Your task to perform on an android device: Go to Maps Image 0: 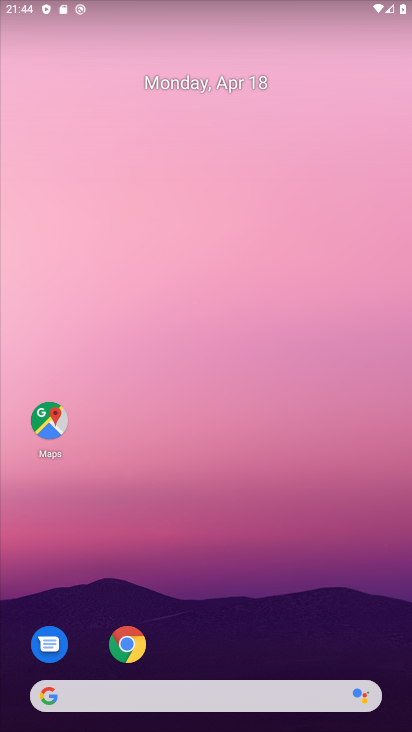
Step 0: click (53, 400)
Your task to perform on an android device: Go to Maps Image 1: 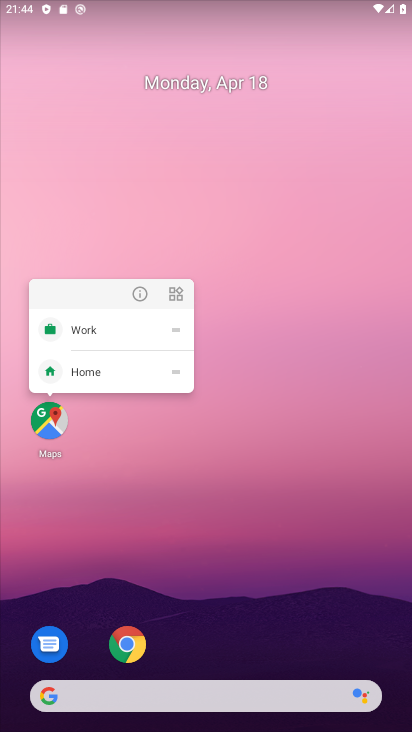
Step 1: click (56, 411)
Your task to perform on an android device: Go to Maps Image 2: 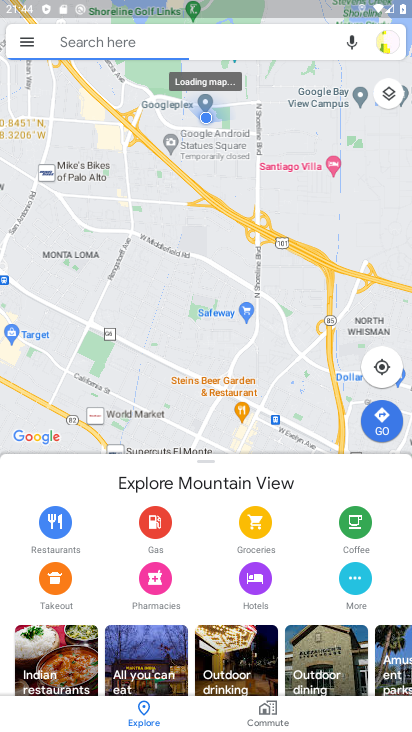
Step 2: task complete